Your task to perform on an android device: Go to privacy settings Image 0: 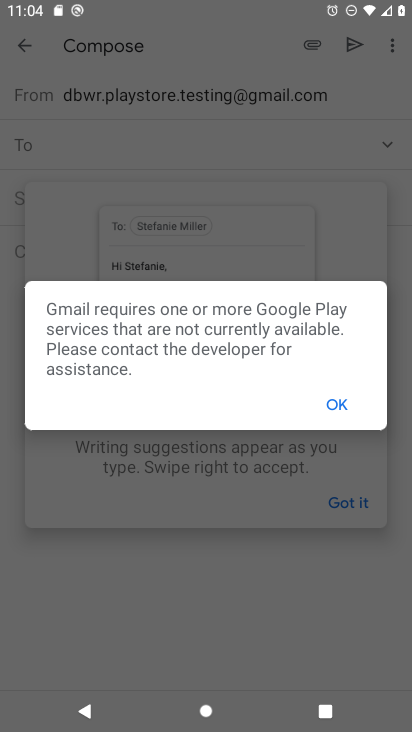
Step 0: press home button
Your task to perform on an android device: Go to privacy settings Image 1: 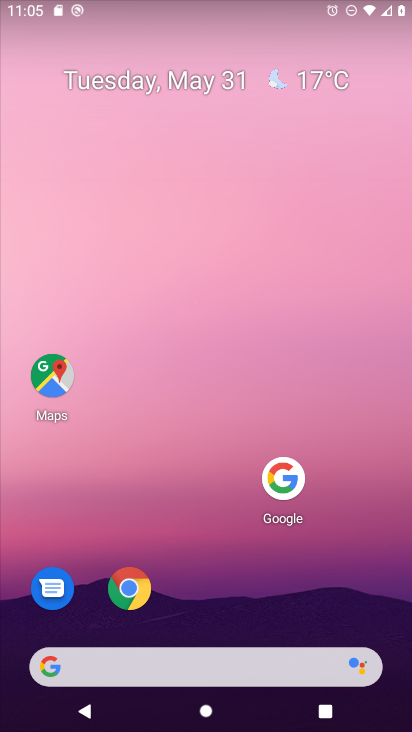
Step 1: drag from (172, 662) to (250, 158)
Your task to perform on an android device: Go to privacy settings Image 2: 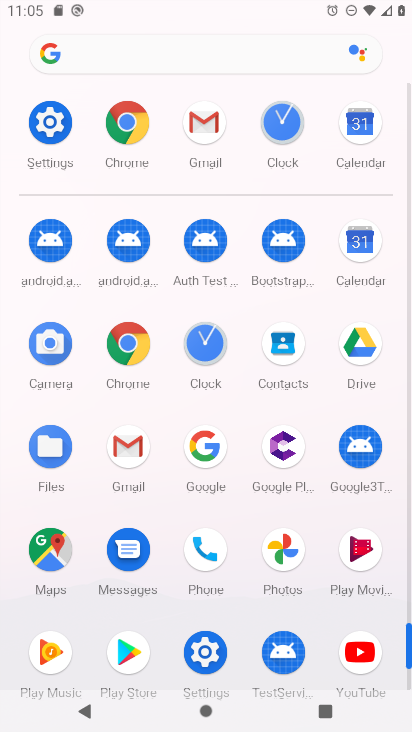
Step 2: click (51, 127)
Your task to perform on an android device: Go to privacy settings Image 3: 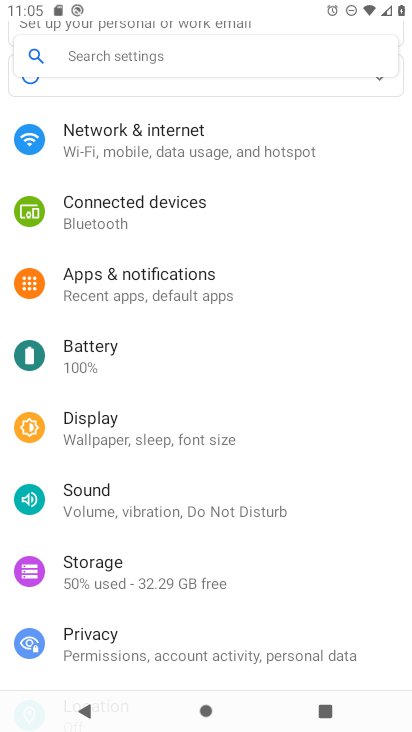
Step 3: click (89, 646)
Your task to perform on an android device: Go to privacy settings Image 4: 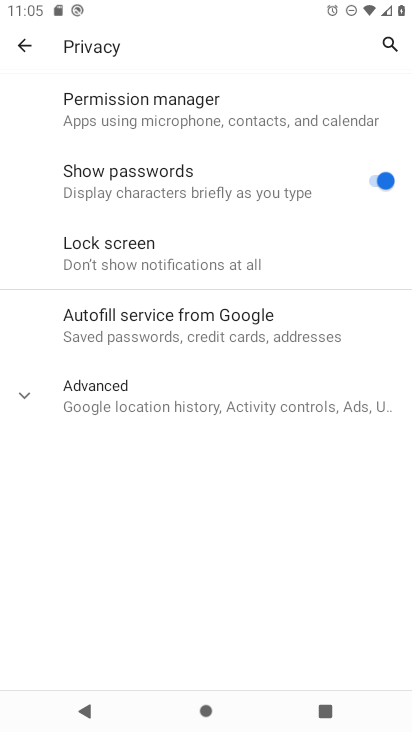
Step 4: task complete